Your task to perform on an android device: Go to Yahoo.com Image 0: 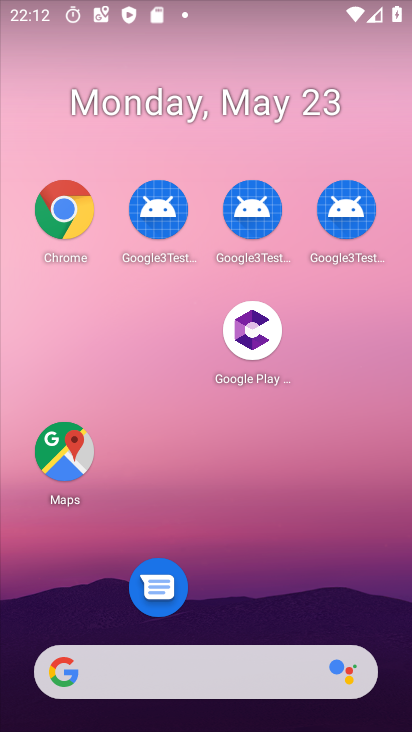
Step 0: click (73, 206)
Your task to perform on an android device: Go to Yahoo.com Image 1: 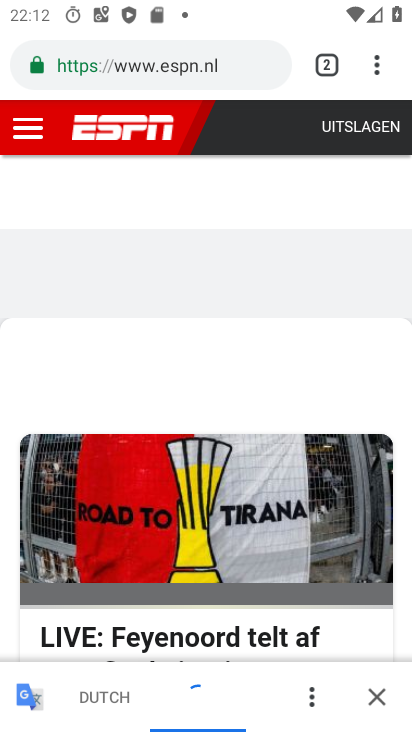
Step 1: click (331, 68)
Your task to perform on an android device: Go to Yahoo.com Image 2: 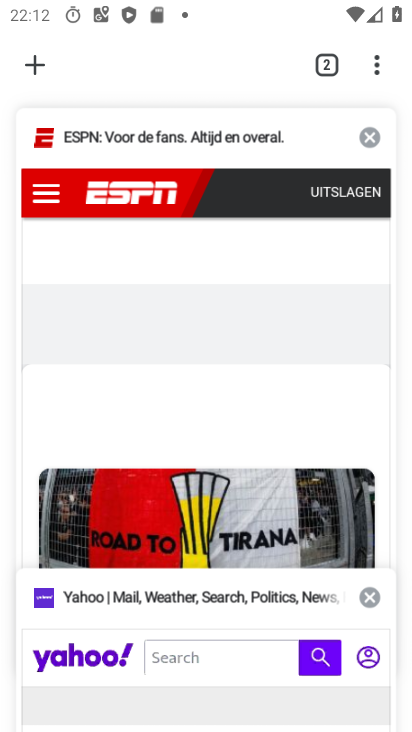
Step 2: click (195, 623)
Your task to perform on an android device: Go to Yahoo.com Image 3: 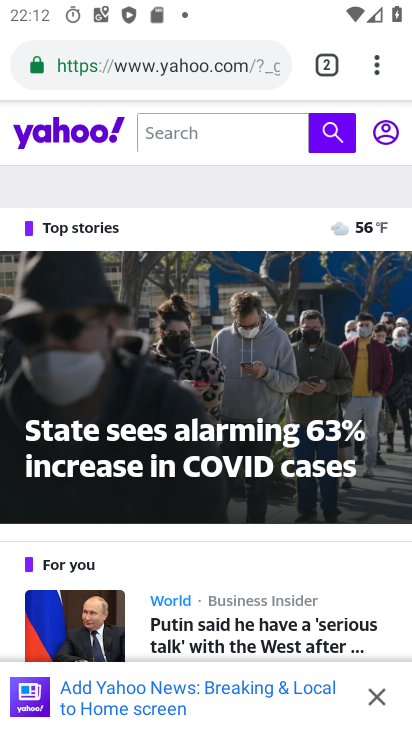
Step 3: task complete